Your task to perform on an android device: see sites visited before in the chrome app Image 0: 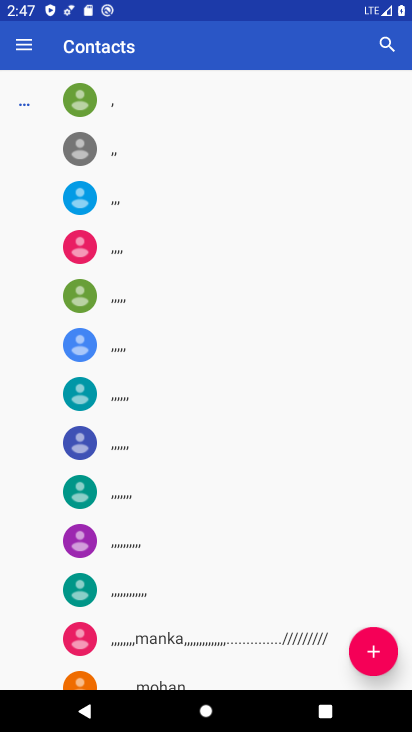
Step 0: press home button
Your task to perform on an android device: see sites visited before in the chrome app Image 1: 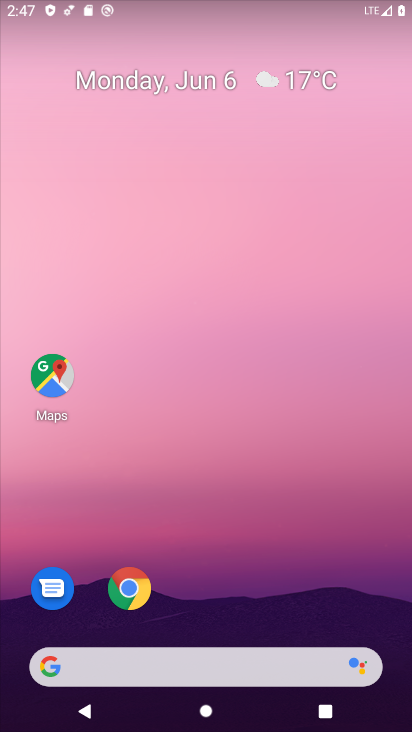
Step 1: click (120, 578)
Your task to perform on an android device: see sites visited before in the chrome app Image 2: 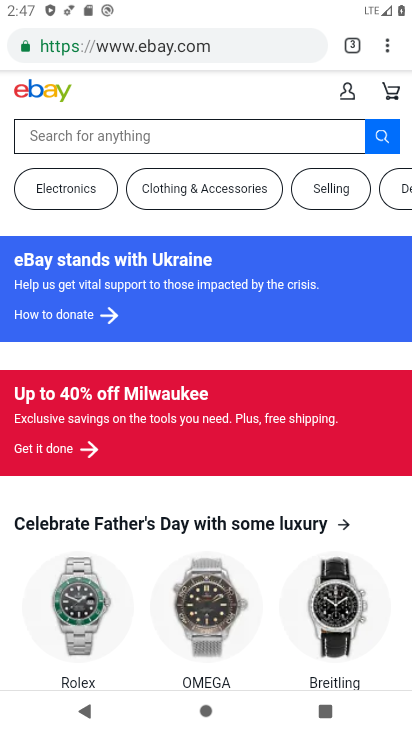
Step 2: task complete